Your task to perform on an android device: change notifications settings Image 0: 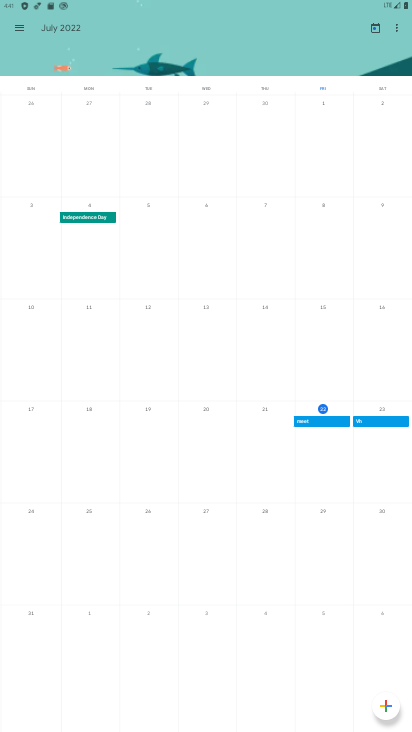
Step 0: press home button
Your task to perform on an android device: change notifications settings Image 1: 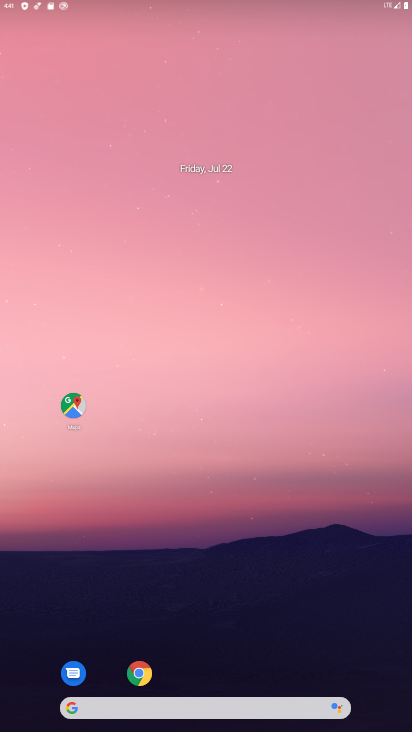
Step 1: drag from (273, 644) to (297, 63)
Your task to perform on an android device: change notifications settings Image 2: 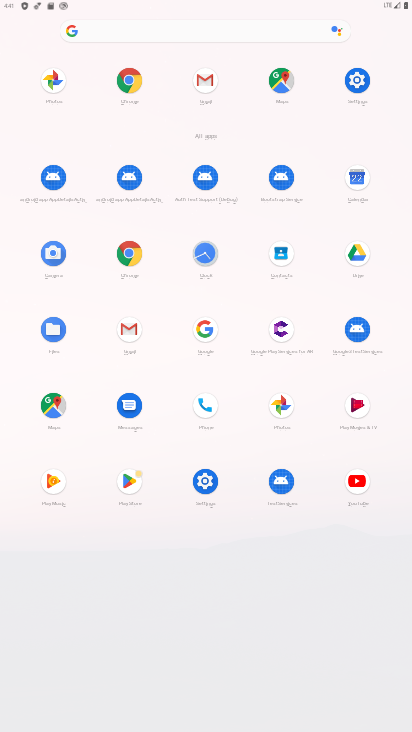
Step 2: click (361, 75)
Your task to perform on an android device: change notifications settings Image 3: 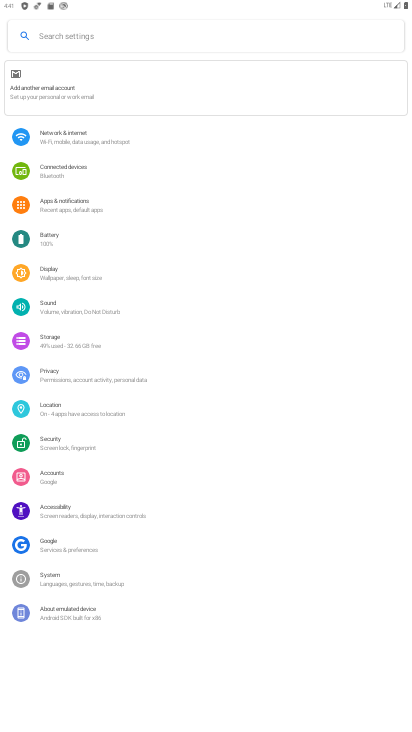
Step 3: click (60, 207)
Your task to perform on an android device: change notifications settings Image 4: 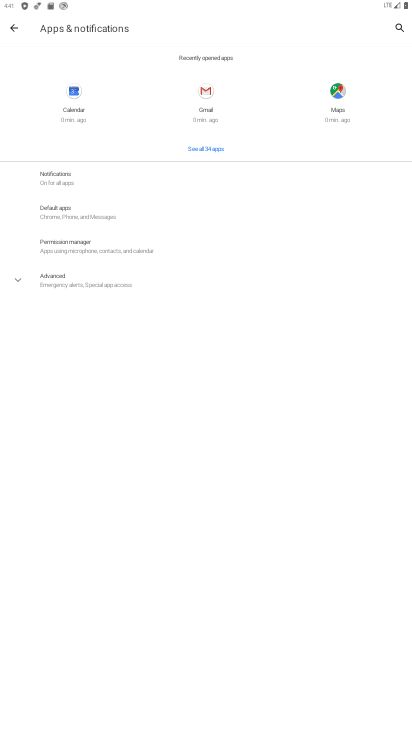
Step 4: click (61, 176)
Your task to perform on an android device: change notifications settings Image 5: 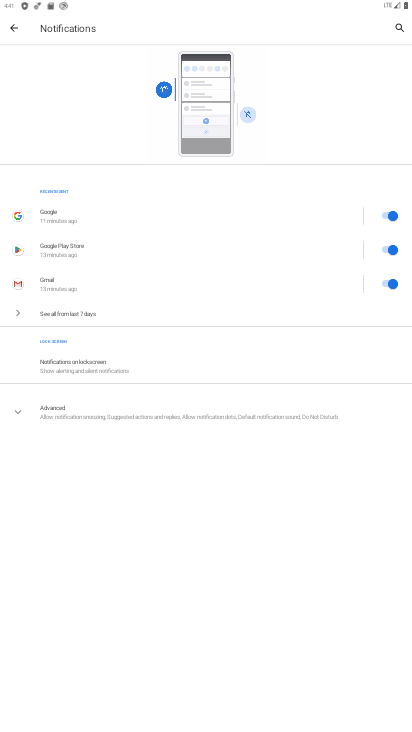
Step 5: click (163, 88)
Your task to perform on an android device: change notifications settings Image 6: 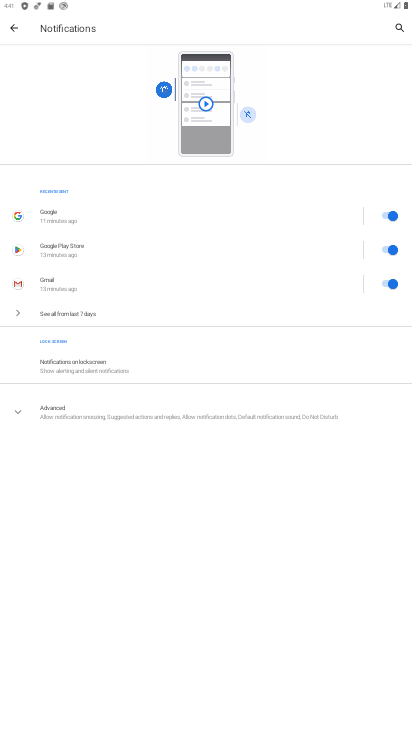
Step 6: task complete